Your task to perform on an android device: turn off location Image 0: 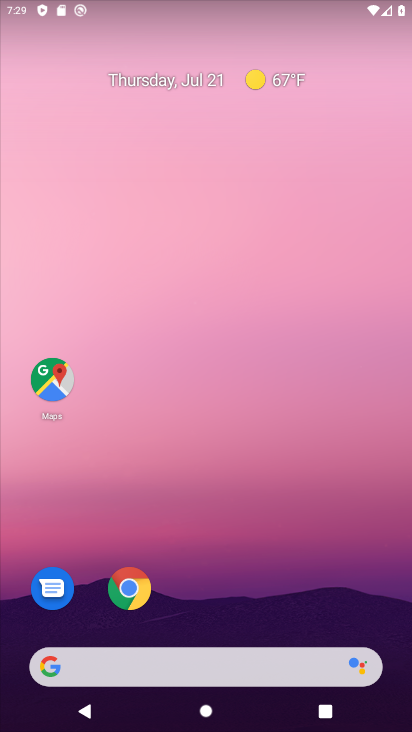
Step 0: drag from (173, 623) to (298, 198)
Your task to perform on an android device: turn off location Image 1: 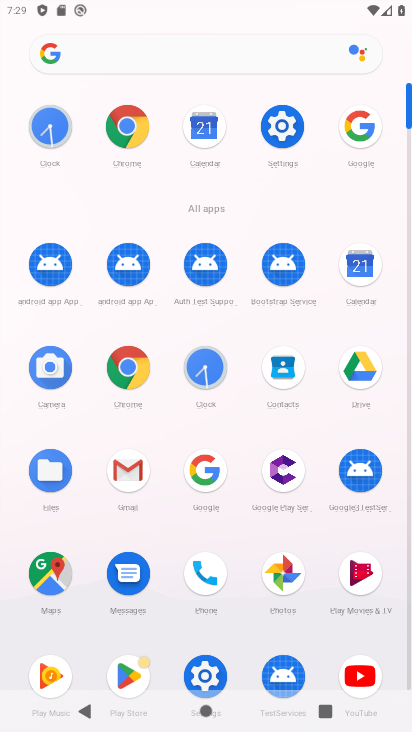
Step 1: click (283, 131)
Your task to perform on an android device: turn off location Image 2: 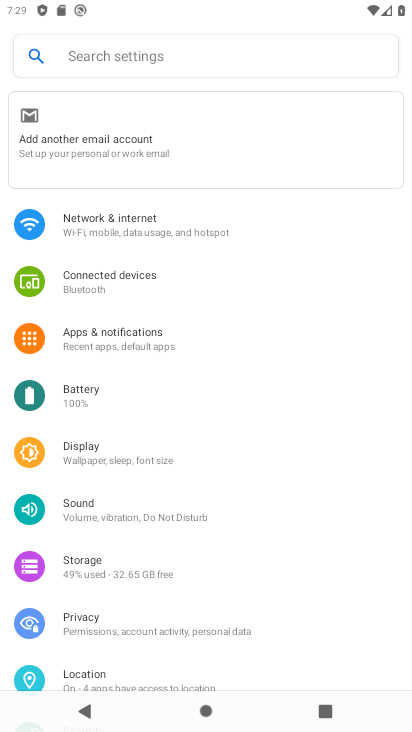
Step 2: click (128, 678)
Your task to perform on an android device: turn off location Image 3: 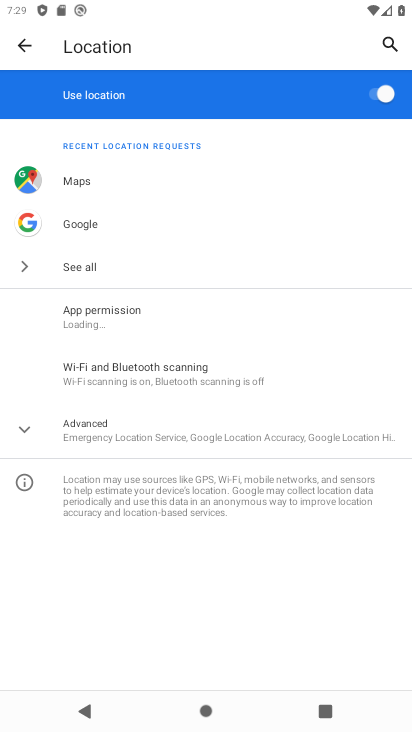
Step 3: click (374, 93)
Your task to perform on an android device: turn off location Image 4: 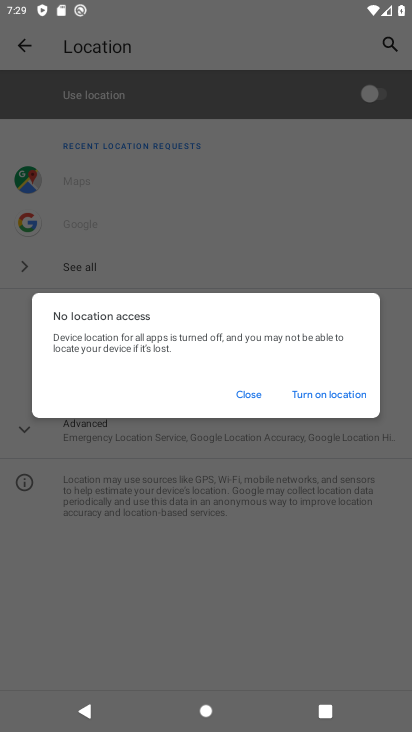
Step 4: click (267, 399)
Your task to perform on an android device: turn off location Image 5: 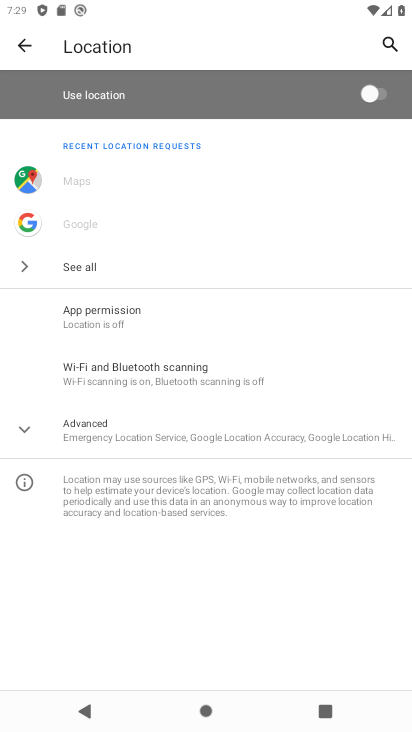
Step 5: task complete